Your task to perform on an android device: Clear all items from cart on newegg. Add logitech g502 to the cart on newegg, then select checkout. Image 0: 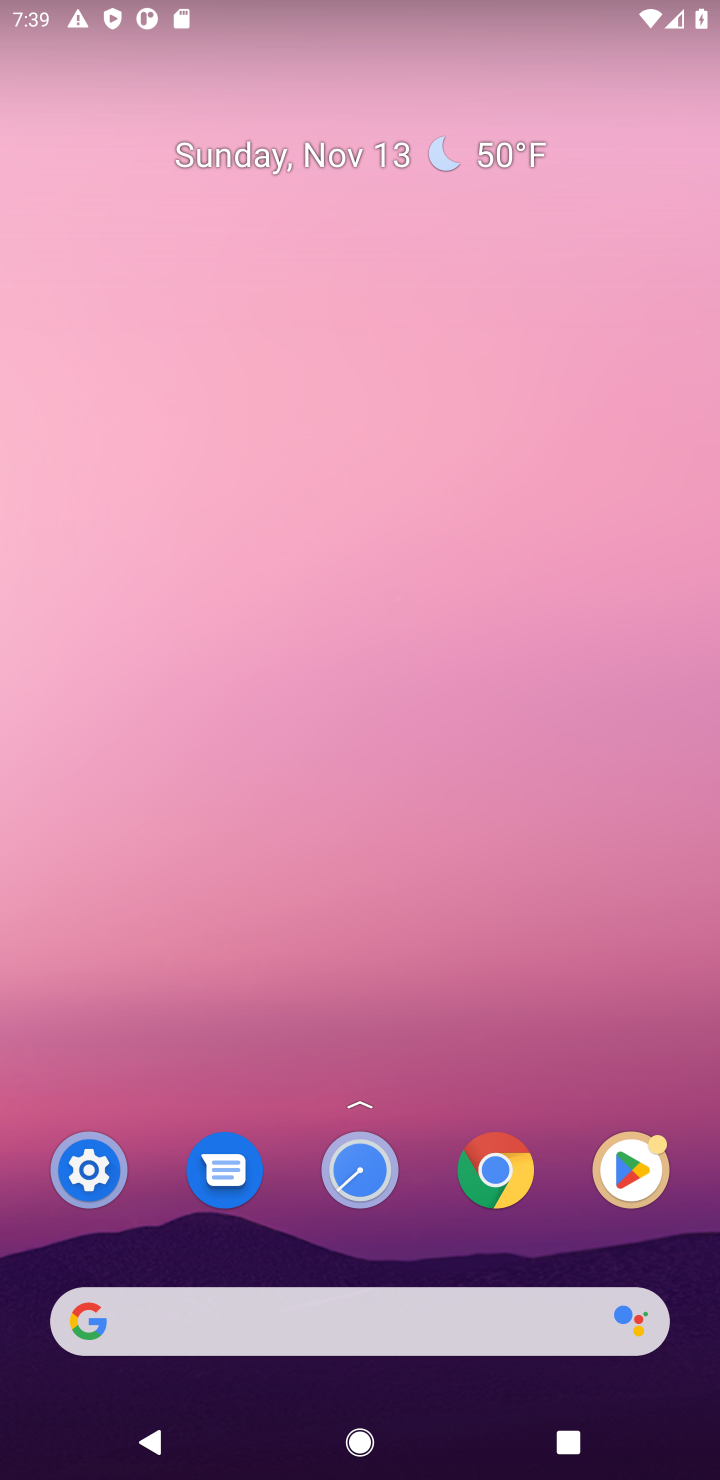
Step 0: click (394, 1322)
Your task to perform on an android device: Clear all items from cart on newegg. Add logitech g502 to the cart on newegg, then select checkout. Image 1: 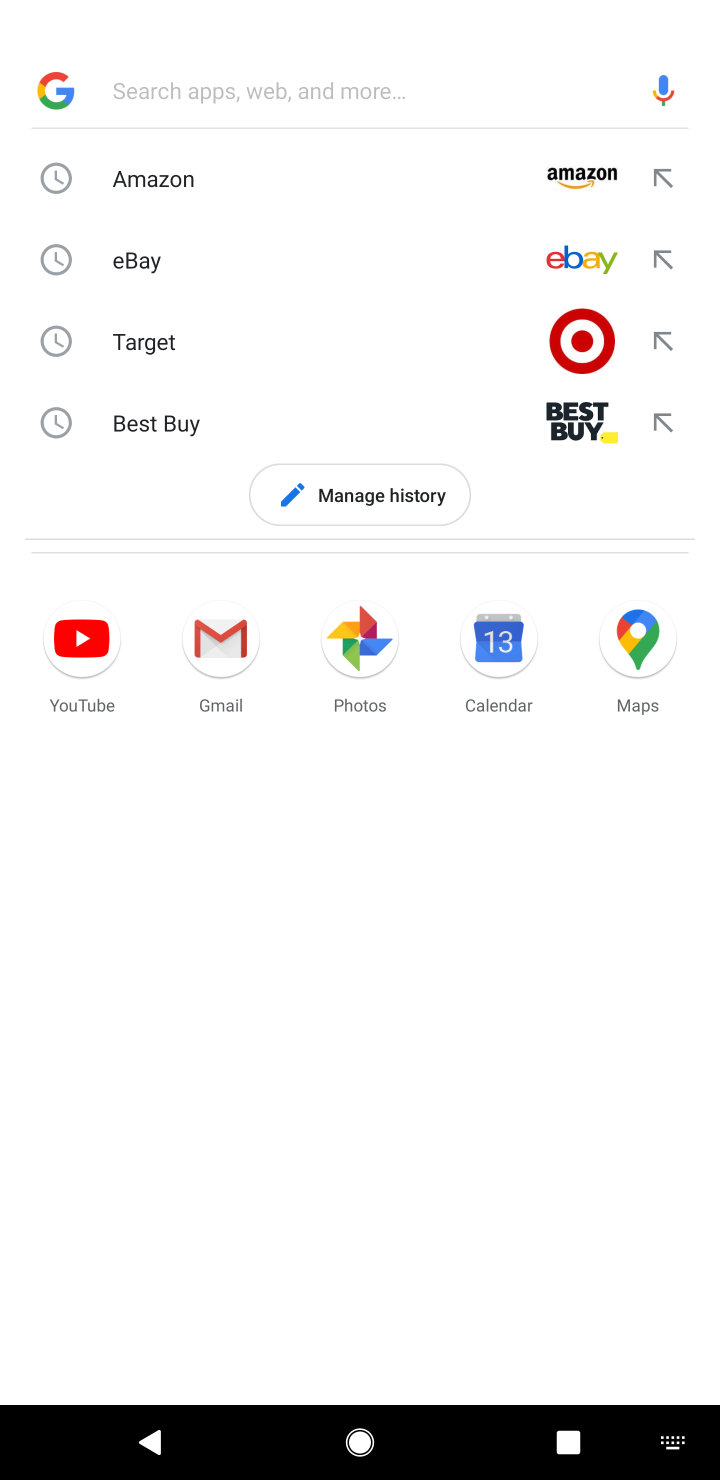
Step 1: type "newegg"
Your task to perform on an android device: Clear all items from cart on newegg. Add logitech g502 to the cart on newegg, then select checkout. Image 2: 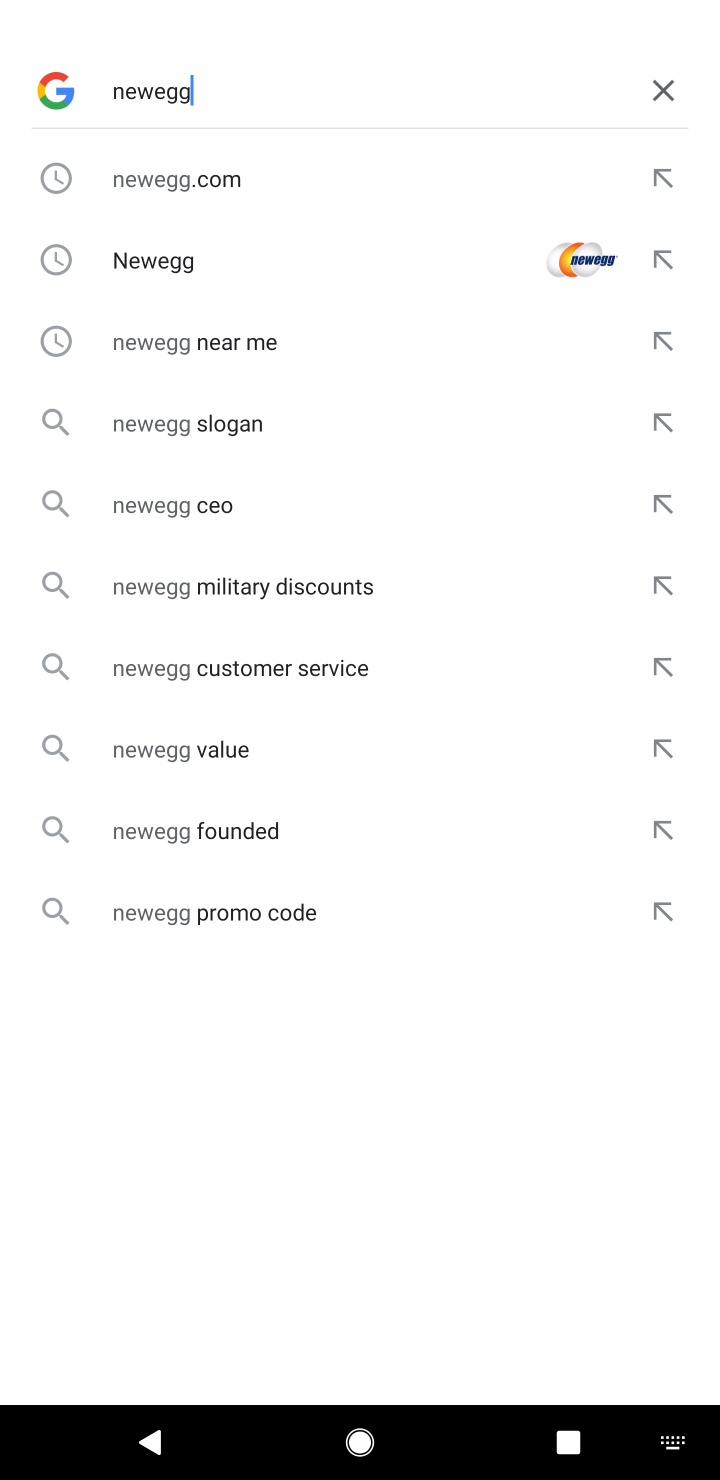
Step 2: click (266, 191)
Your task to perform on an android device: Clear all items from cart on newegg. Add logitech g502 to the cart on newegg, then select checkout. Image 3: 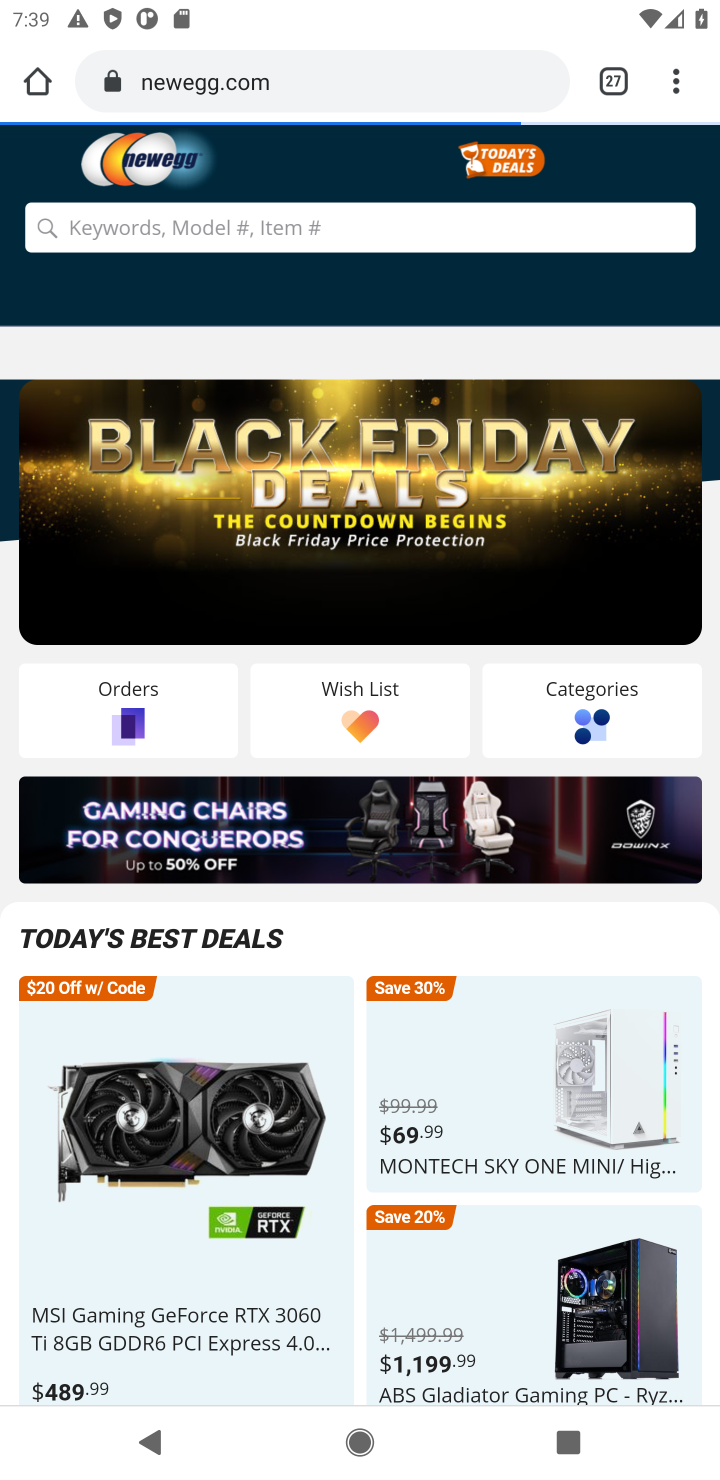
Step 3: task complete